Your task to perform on an android device: allow notifications from all sites in the chrome app Image 0: 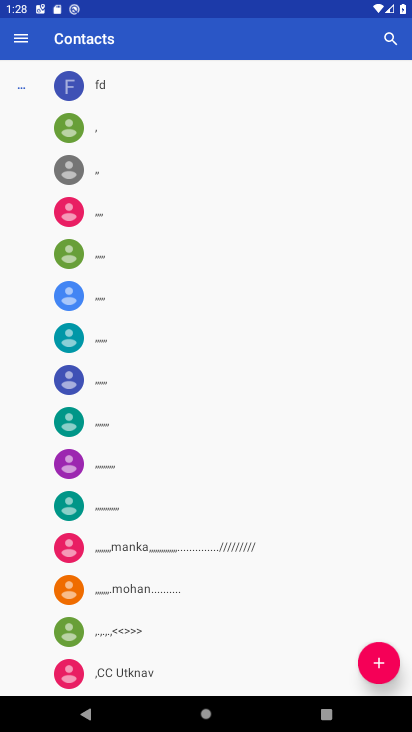
Step 0: press home button
Your task to perform on an android device: allow notifications from all sites in the chrome app Image 1: 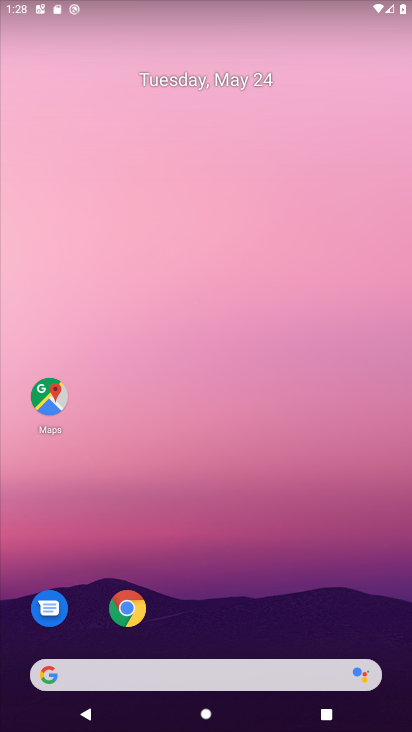
Step 1: click (150, 625)
Your task to perform on an android device: allow notifications from all sites in the chrome app Image 2: 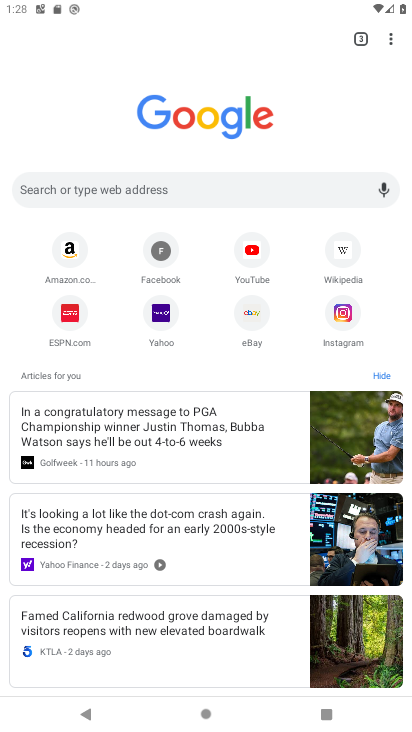
Step 2: click (404, 51)
Your task to perform on an android device: allow notifications from all sites in the chrome app Image 3: 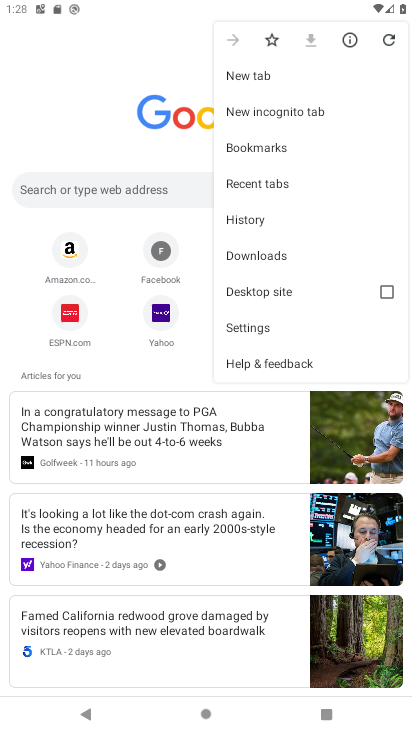
Step 3: click (330, 335)
Your task to perform on an android device: allow notifications from all sites in the chrome app Image 4: 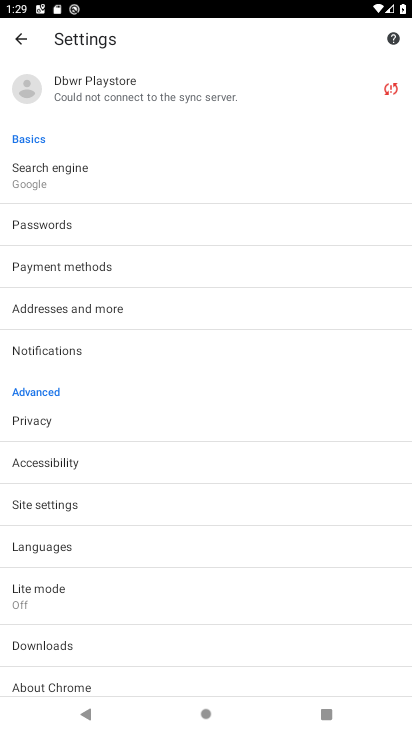
Step 4: task complete